Your task to perform on an android device: uninstall "Upside-Cash back on gas & food" Image 0: 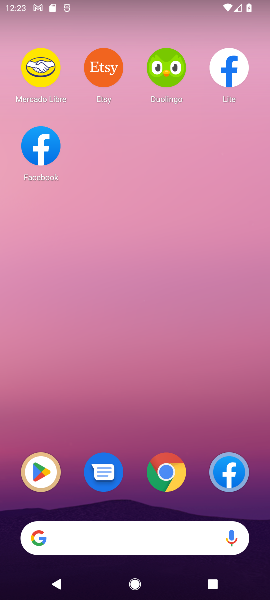
Step 0: click (30, 481)
Your task to perform on an android device: uninstall "Upside-Cash back on gas & food" Image 1: 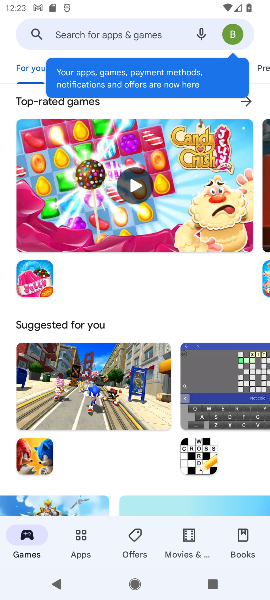
Step 1: click (120, 32)
Your task to perform on an android device: uninstall "Upside-Cash back on gas & food" Image 2: 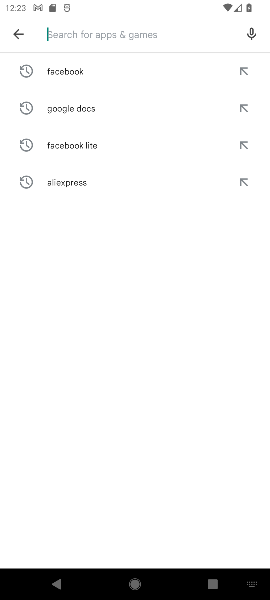
Step 2: type "upside-cash back on gas & food"
Your task to perform on an android device: uninstall "Upside-Cash back on gas & food" Image 3: 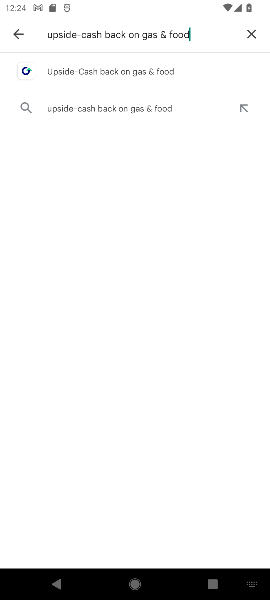
Step 3: click (59, 72)
Your task to perform on an android device: uninstall "Upside-Cash back on gas & food" Image 4: 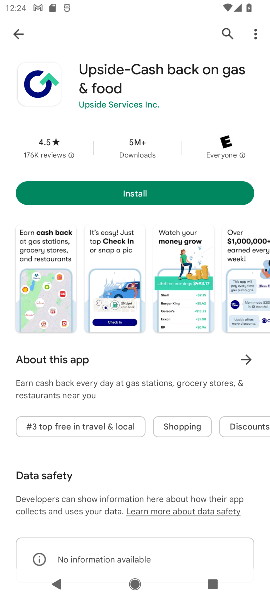
Step 4: task complete